Your task to perform on an android device: Open the phone app and click the voicemail tab. Image 0: 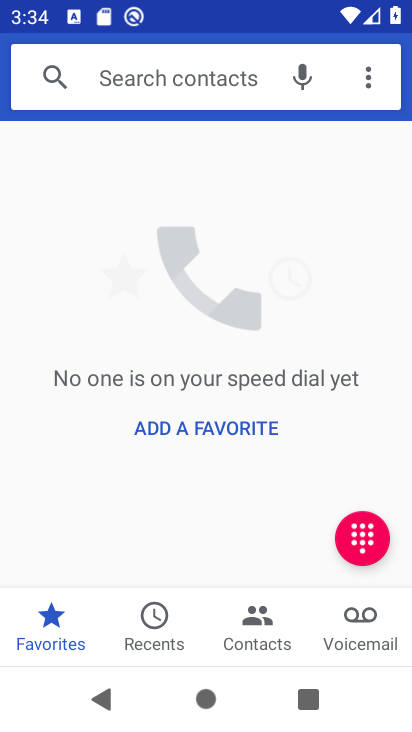
Step 0: press home button
Your task to perform on an android device: Open the phone app and click the voicemail tab. Image 1: 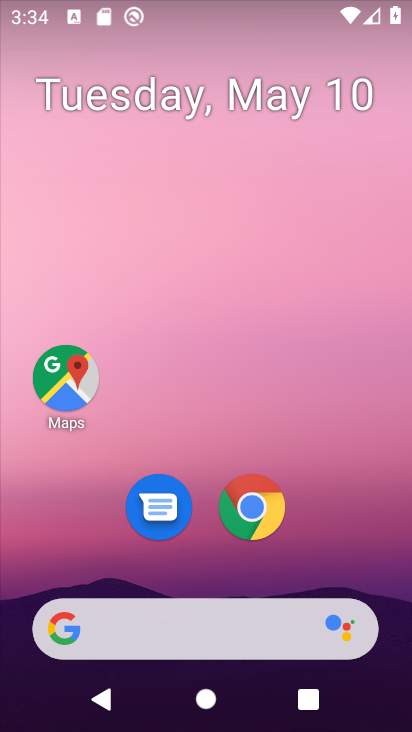
Step 1: drag from (171, 585) to (200, 211)
Your task to perform on an android device: Open the phone app and click the voicemail tab. Image 2: 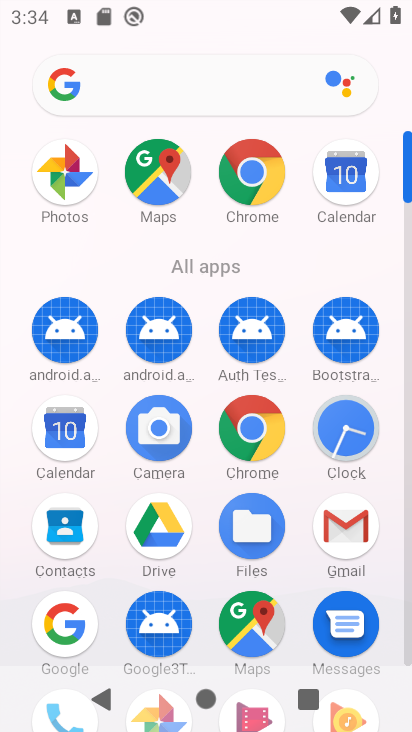
Step 2: drag from (108, 603) to (141, 333)
Your task to perform on an android device: Open the phone app and click the voicemail tab. Image 3: 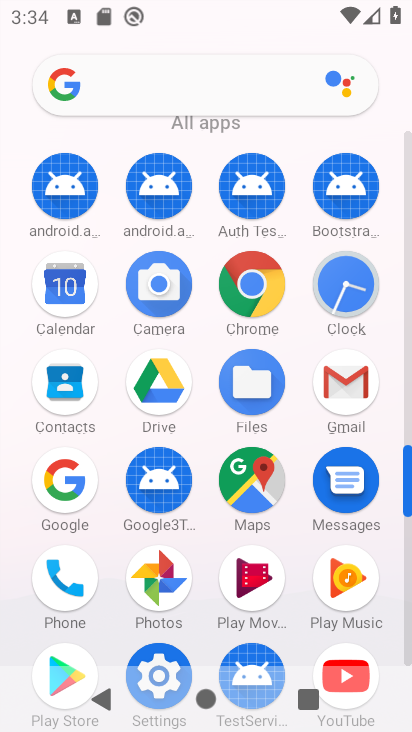
Step 3: click (62, 581)
Your task to perform on an android device: Open the phone app and click the voicemail tab. Image 4: 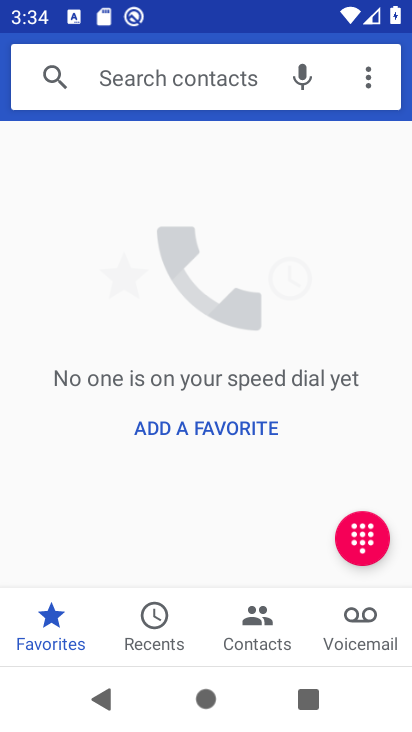
Step 4: click (342, 616)
Your task to perform on an android device: Open the phone app and click the voicemail tab. Image 5: 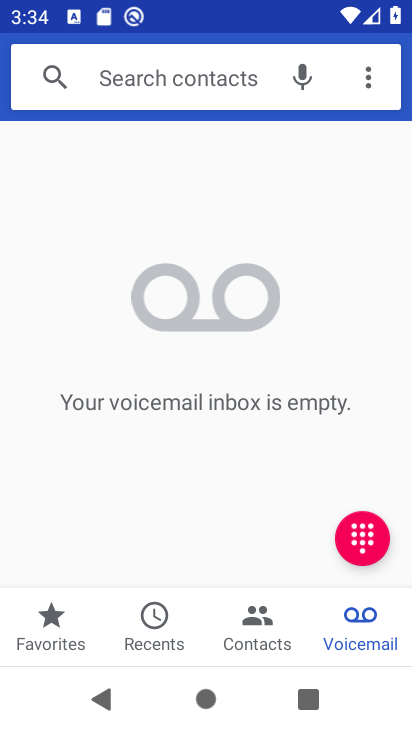
Step 5: task complete